Your task to perform on an android device: turn on improve location accuracy Image 0: 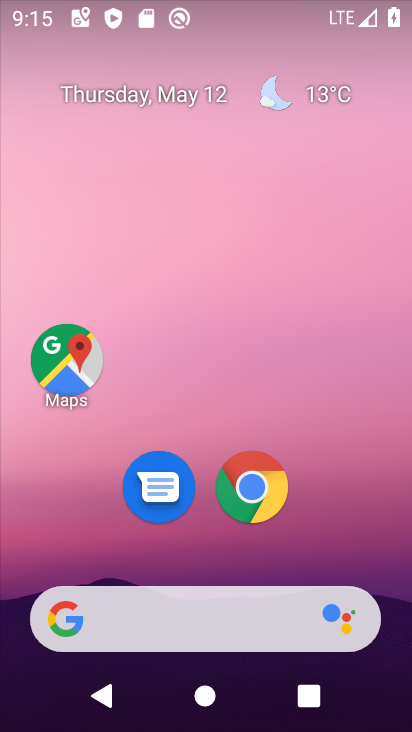
Step 0: drag from (367, 559) to (327, 11)
Your task to perform on an android device: turn on improve location accuracy Image 1: 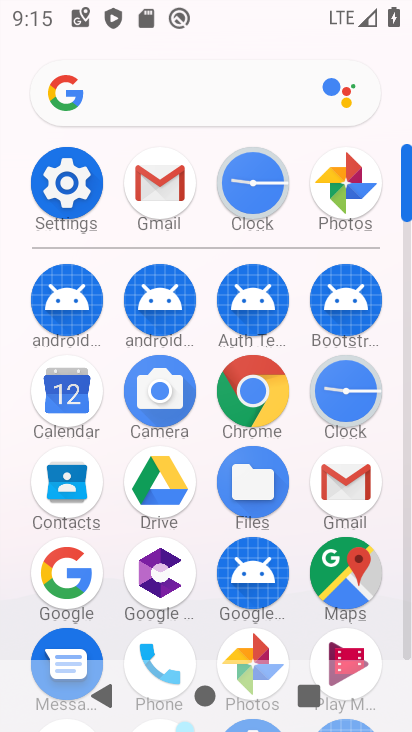
Step 1: click (78, 187)
Your task to perform on an android device: turn on improve location accuracy Image 2: 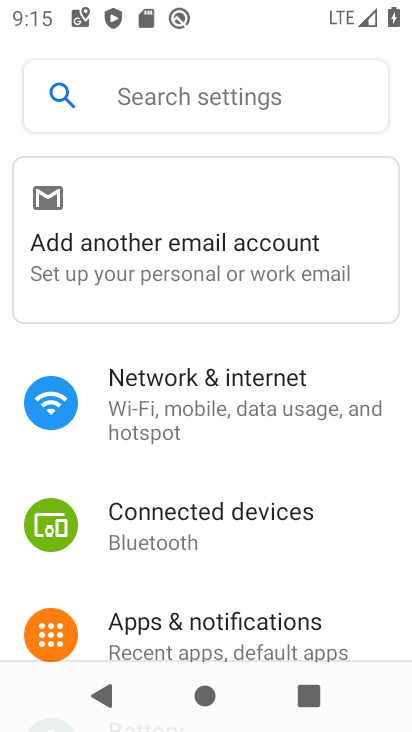
Step 2: drag from (343, 540) to (321, 5)
Your task to perform on an android device: turn on improve location accuracy Image 3: 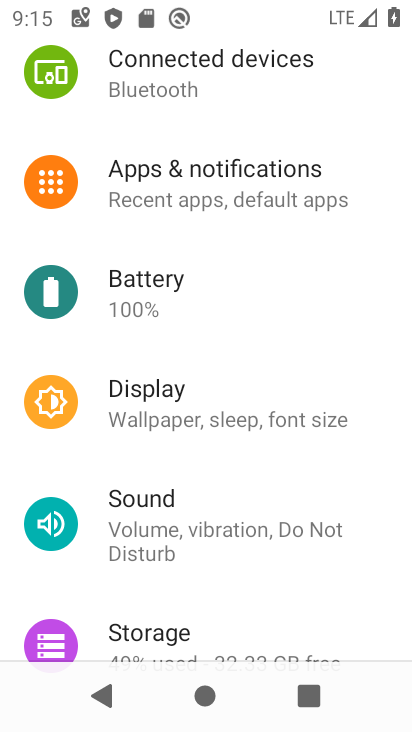
Step 3: drag from (349, 416) to (332, 35)
Your task to perform on an android device: turn on improve location accuracy Image 4: 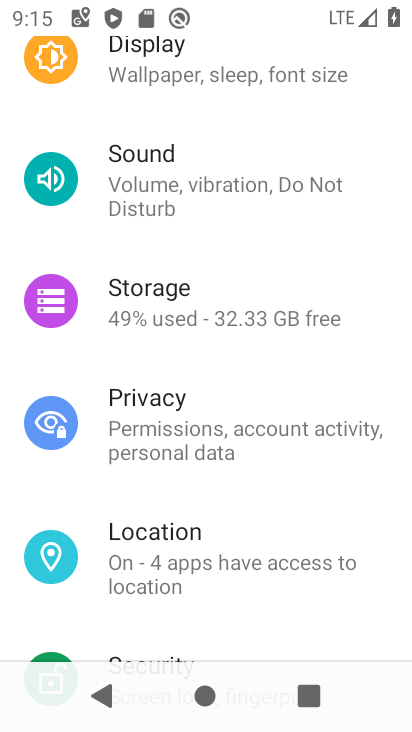
Step 4: click (168, 555)
Your task to perform on an android device: turn on improve location accuracy Image 5: 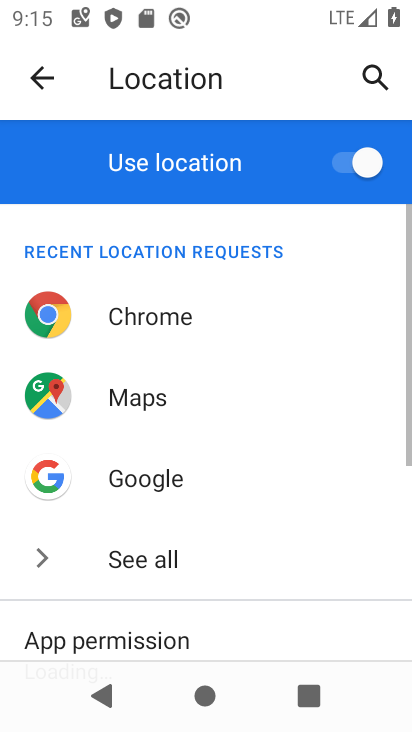
Step 5: drag from (261, 658) to (290, 112)
Your task to perform on an android device: turn on improve location accuracy Image 6: 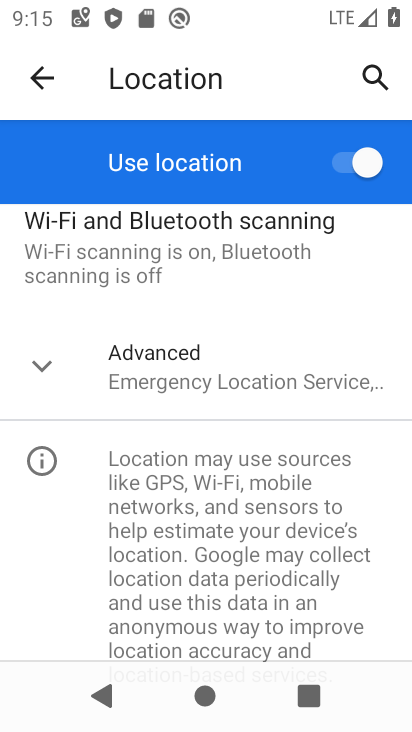
Step 6: click (36, 377)
Your task to perform on an android device: turn on improve location accuracy Image 7: 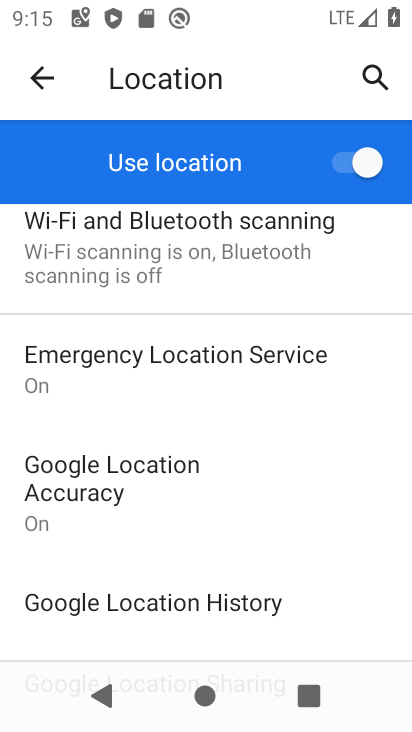
Step 7: click (91, 488)
Your task to perform on an android device: turn on improve location accuracy Image 8: 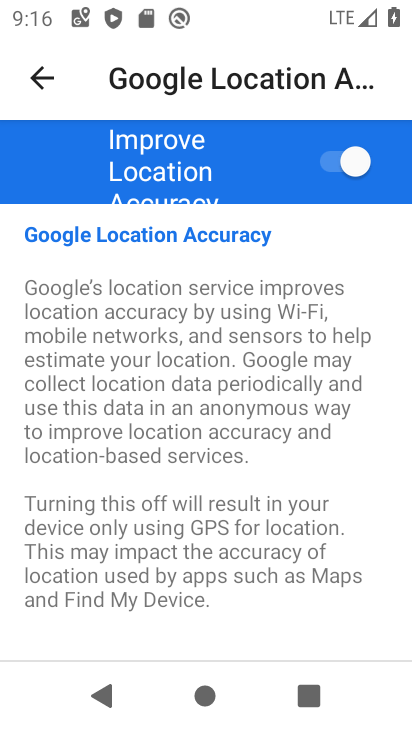
Step 8: task complete